Your task to perform on an android device: Open Google Chrome and click the shortcut for Amazon.com Image 0: 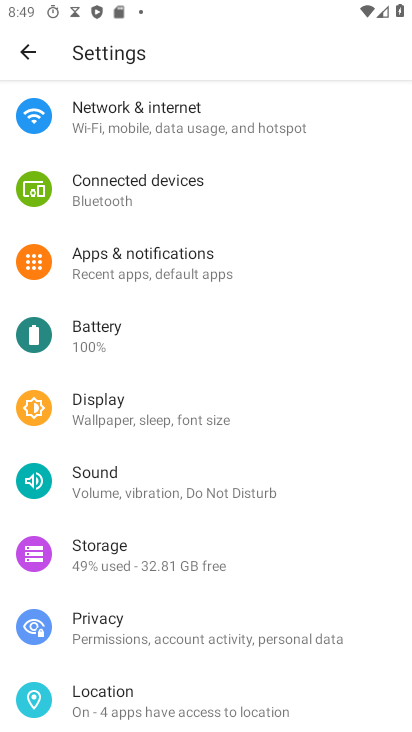
Step 0: press home button
Your task to perform on an android device: Open Google Chrome and click the shortcut for Amazon.com Image 1: 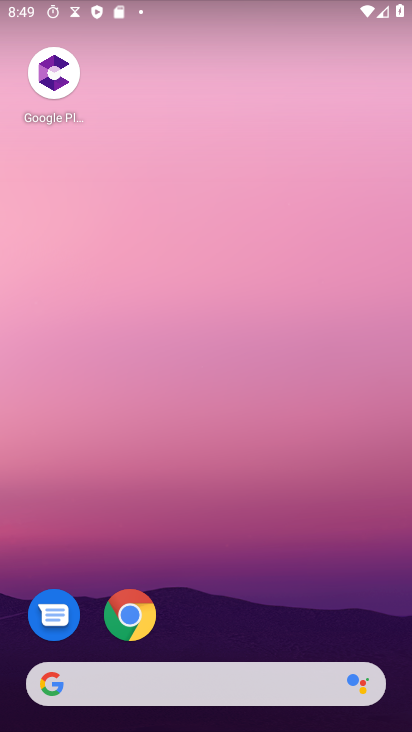
Step 1: click (135, 614)
Your task to perform on an android device: Open Google Chrome and click the shortcut for Amazon.com Image 2: 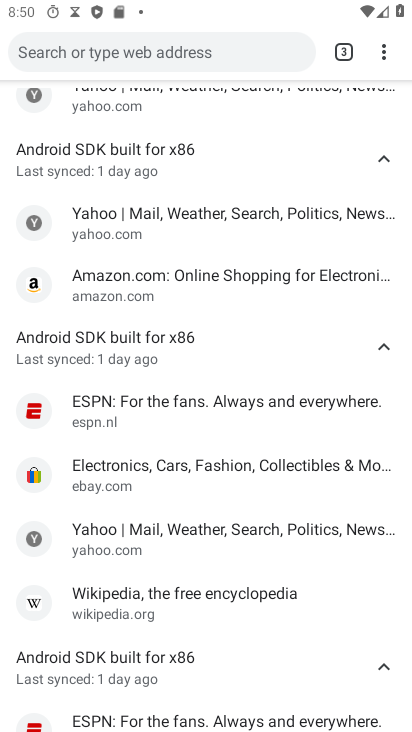
Step 2: click (346, 58)
Your task to perform on an android device: Open Google Chrome and click the shortcut for Amazon.com Image 3: 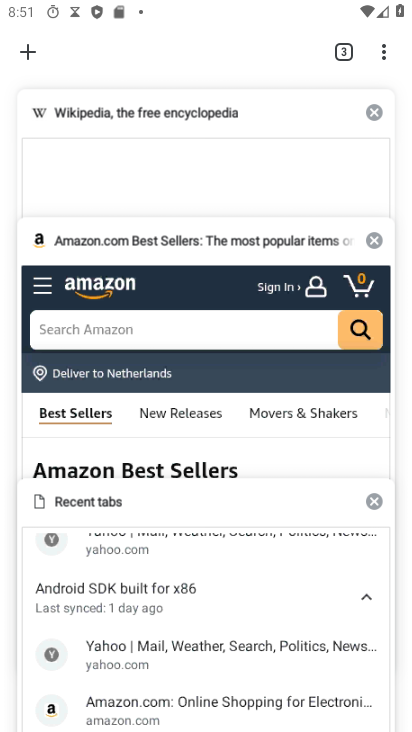
Step 3: click (137, 294)
Your task to perform on an android device: Open Google Chrome and click the shortcut for Amazon.com Image 4: 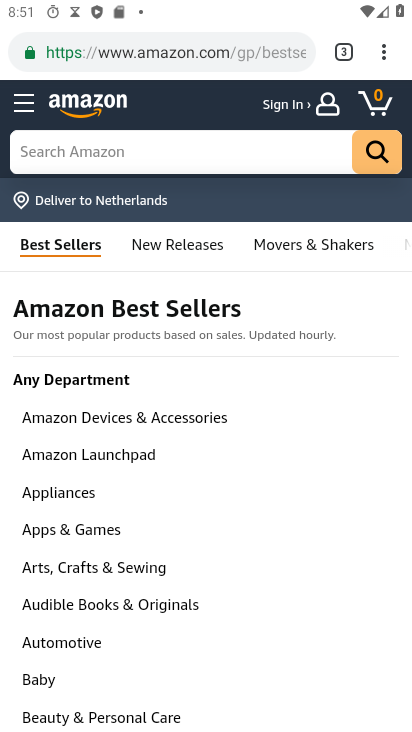
Step 4: task complete